Your task to perform on an android device: Show me some nice wallpapers for my computer Image 0: 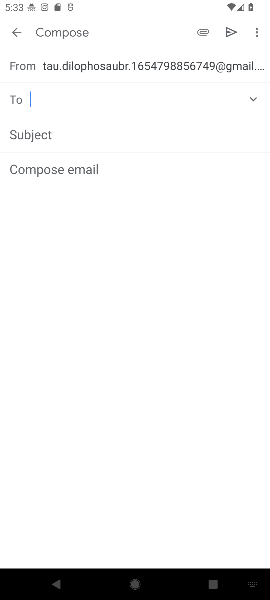
Step 0: press home button
Your task to perform on an android device: Show me some nice wallpapers for my computer Image 1: 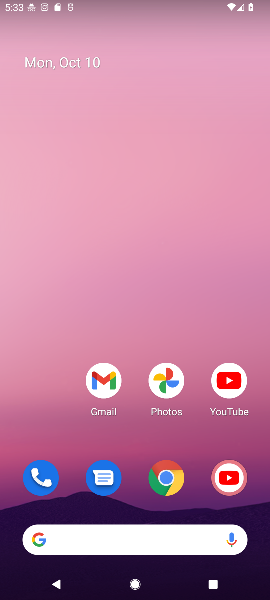
Step 1: click (164, 485)
Your task to perform on an android device: Show me some nice wallpapers for my computer Image 2: 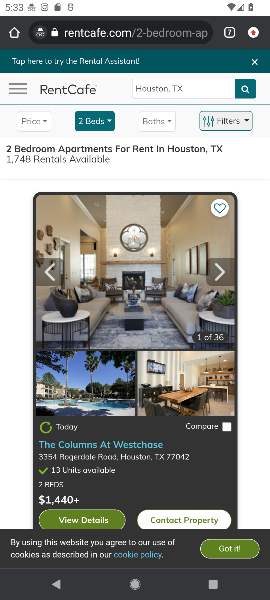
Step 2: click (99, 34)
Your task to perform on an android device: Show me some nice wallpapers for my computer Image 3: 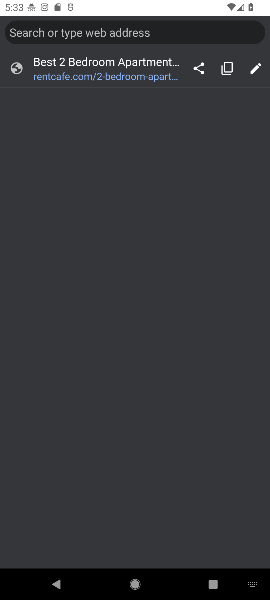
Step 3: type " nice wallpapers for my computer"
Your task to perform on an android device: Show me some nice wallpapers for my computer Image 4: 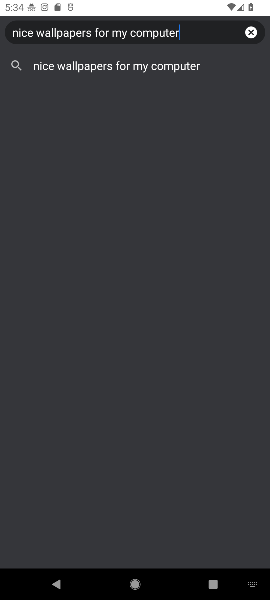
Step 4: click (86, 70)
Your task to perform on an android device: Show me some nice wallpapers for my computer Image 5: 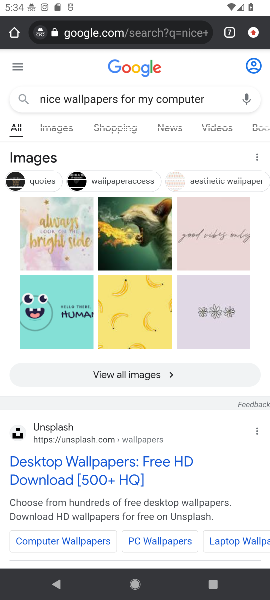
Step 5: click (58, 128)
Your task to perform on an android device: Show me some nice wallpapers for my computer Image 6: 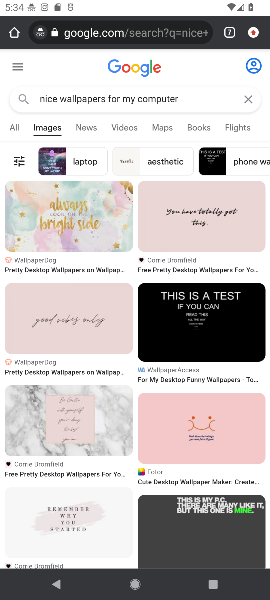
Step 6: task complete